Your task to perform on an android device: turn off location history Image 0: 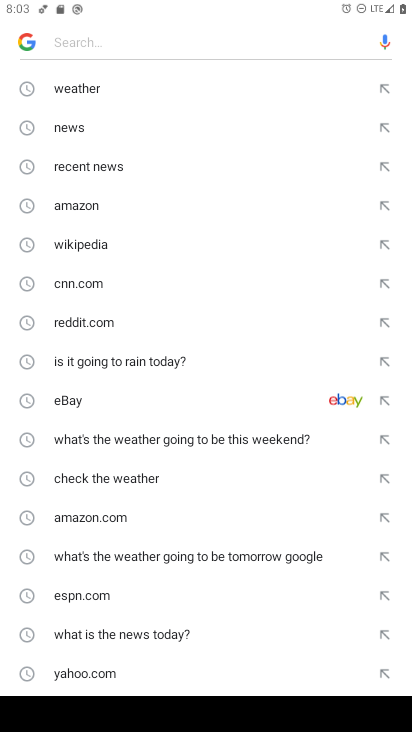
Step 0: press home button
Your task to perform on an android device: turn off location history Image 1: 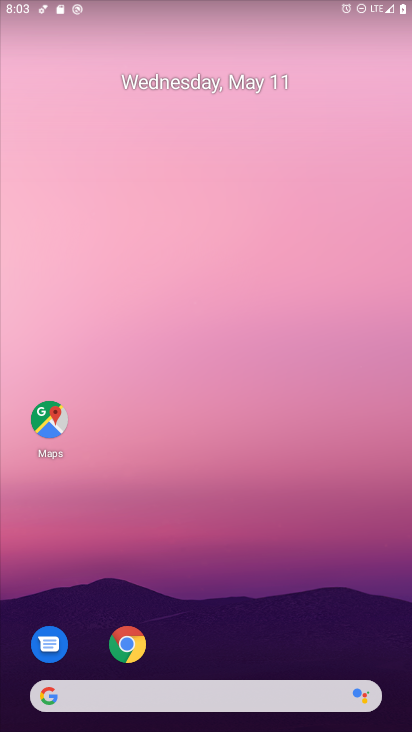
Step 1: click (40, 423)
Your task to perform on an android device: turn off location history Image 2: 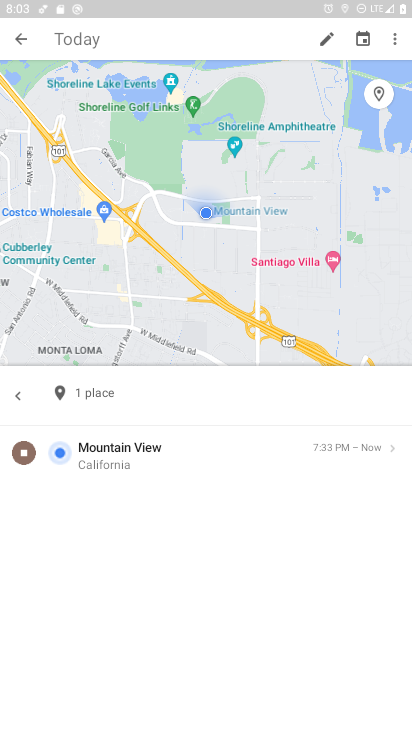
Step 2: click (390, 40)
Your task to perform on an android device: turn off location history Image 3: 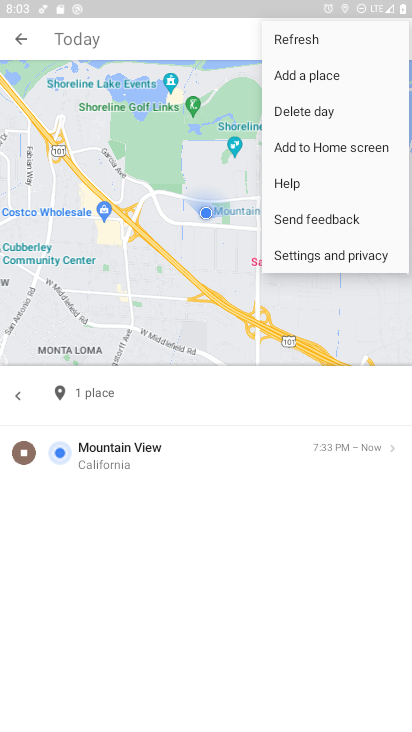
Step 3: click (326, 249)
Your task to perform on an android device: turn off location history Image 4: 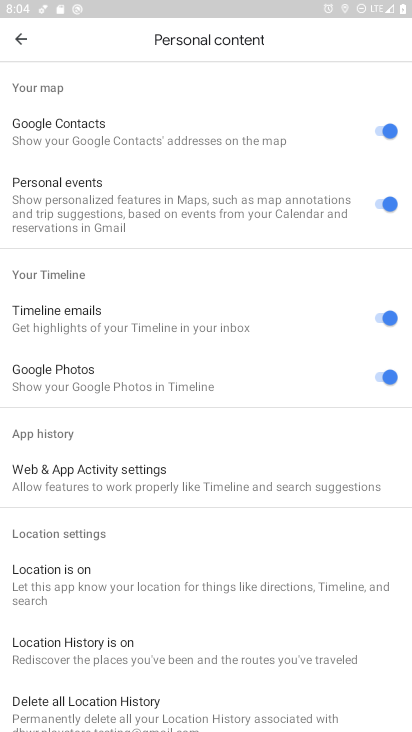
Step 4: click (57, 643)
Your task to perform on an android device: turn off location history Image 5: 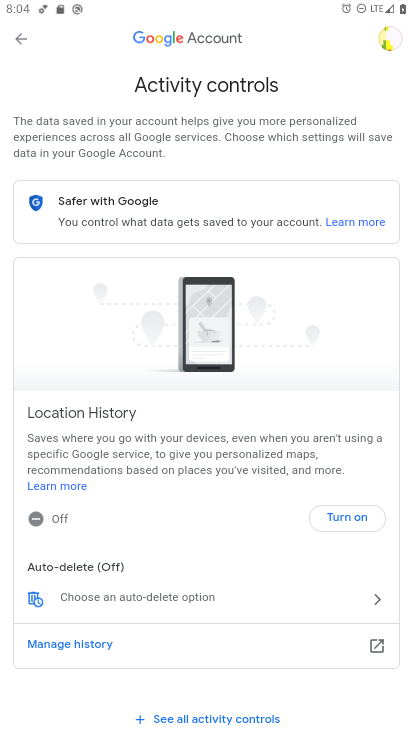
Step 5: task complete